Your task to perform on an android device: add a label to a message in the gmail app Image 0: 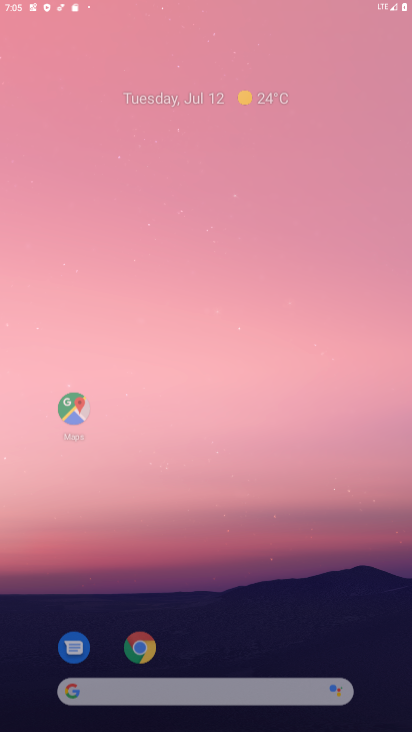
Step 0: drag from (382, 671) to (276, 19)
Your task to perform on an android device: add a label to a message in the gmail app Image 1: 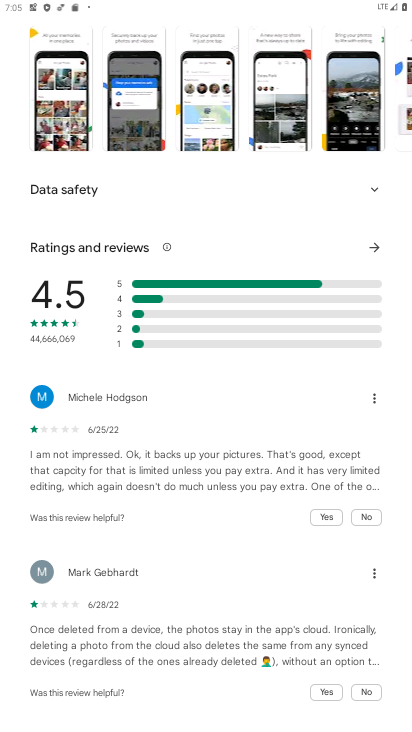
Step 1: press home button
Your task to perform on an android device: add a label to a message in the gmail app Image 2: 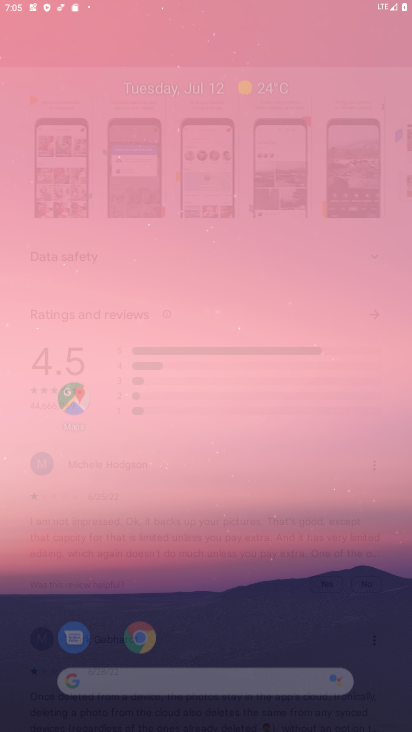
Step 2: drag from (382, 693) to (250, 7)
Your task to perform on an android device: add a label to a message in the gmail app Image 3: 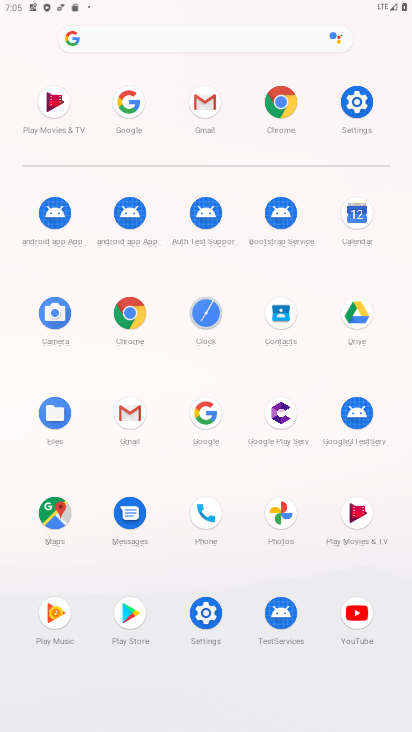
Step 3: click (127, 431)
Your task to perform on an android device: add a label to a message in the gmail app Image 4: 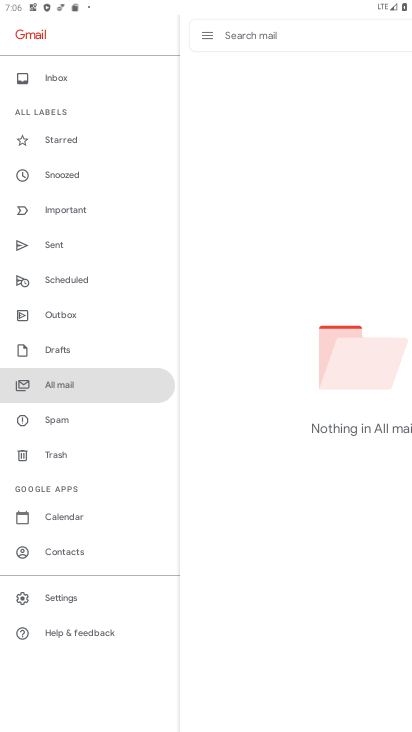
Step 4: task complete